Your task to perform on an android device: Do I have any events tomorrow? Image 0: 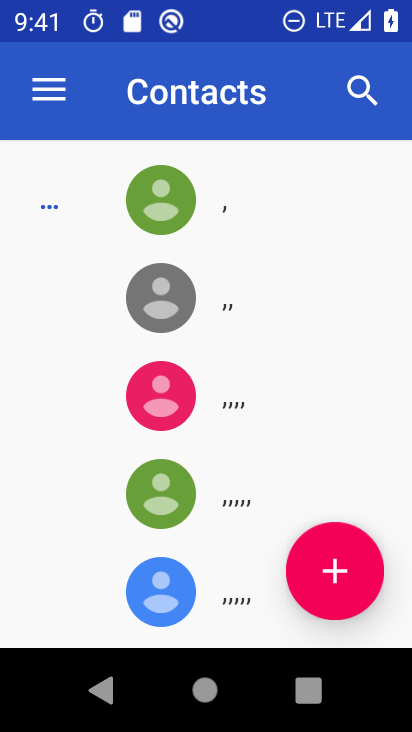
Step 0: press home button
Your task to perform on an android device: Do I have any events tomorrow? Image 1: 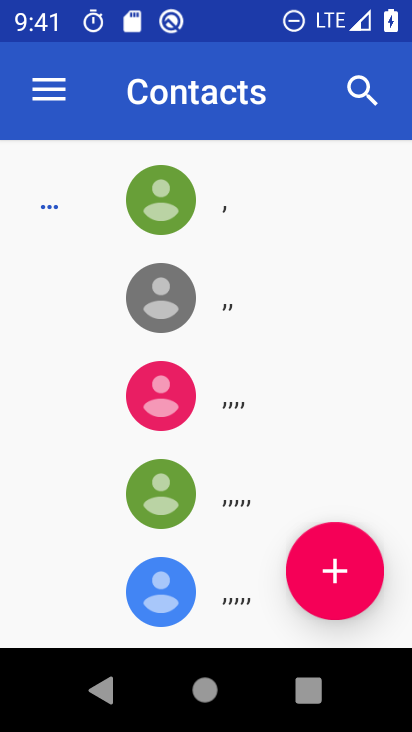
Step 1: press home button
Your task to perform on an android device: Do I have any events tomorrow? Image 2: 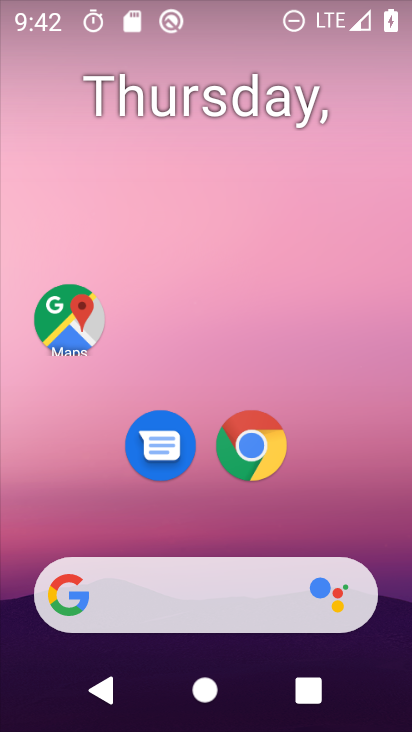
Step 2: drag from (208, 536) to (220, 277)
Your task to perform on an android device: Do I have any events tomorrow? Image 3: 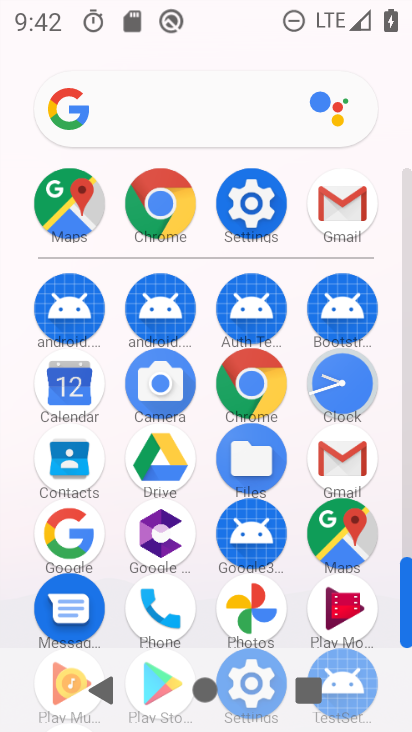
Step 3: click (66, 377)
Your task to perform on an android device: Do I have any events tomorrow? Image 4: 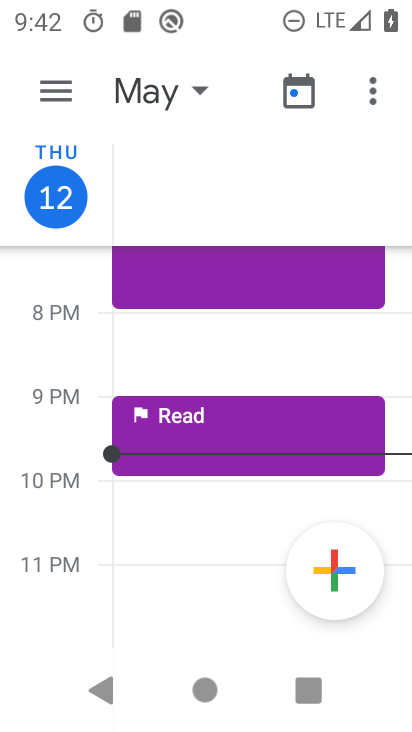
Step 4: drag from (235, 585) to (241, 321)
Your task to perform on an android device: Do I have any events tomorrow? Image 5: 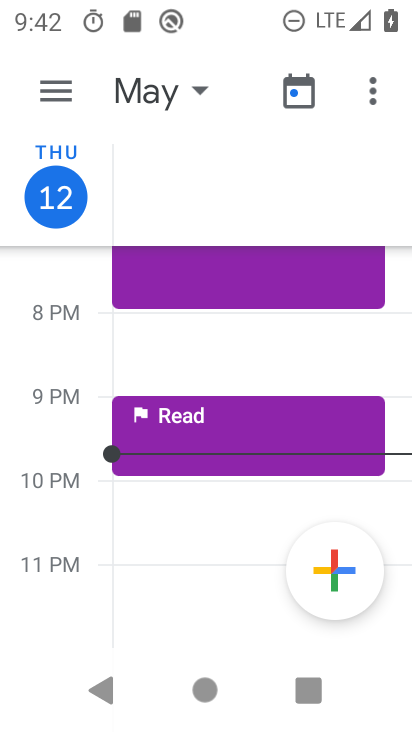
Step 5: click (173, 93)
Your task to perform on an android device: Do I have any events tomorrow? Image 6: 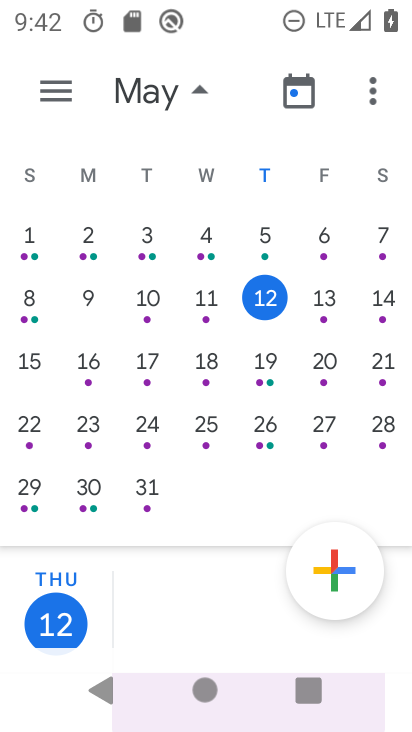
Step 6: click (326, 297)
Your task to perform on an android device: Do I have any events tomorrow? Image 7: 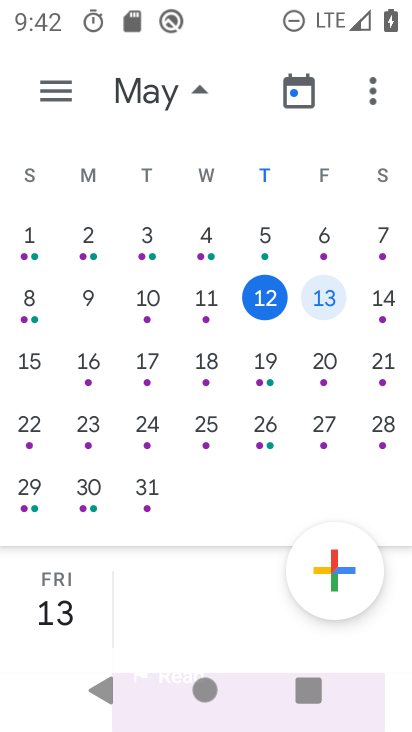
Step 7: click (378, 302)
Your task to perform on an android device: Do I have any events tomorrow? Image 8: 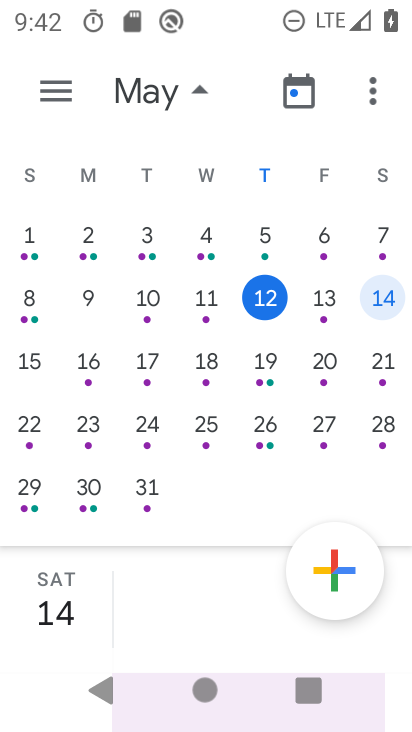
Step 8: task complete